Your task to perform on an android device: find which apps use the phone's location Image 0: 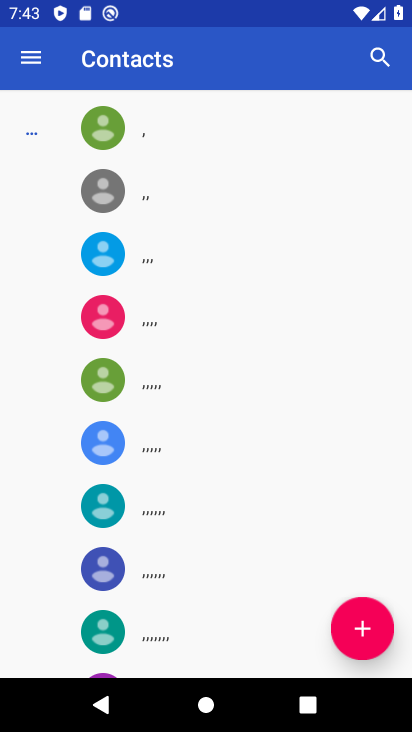
Step 0: press home button
Your task to perform on an android device: find which apps use the phone's location Image 1: 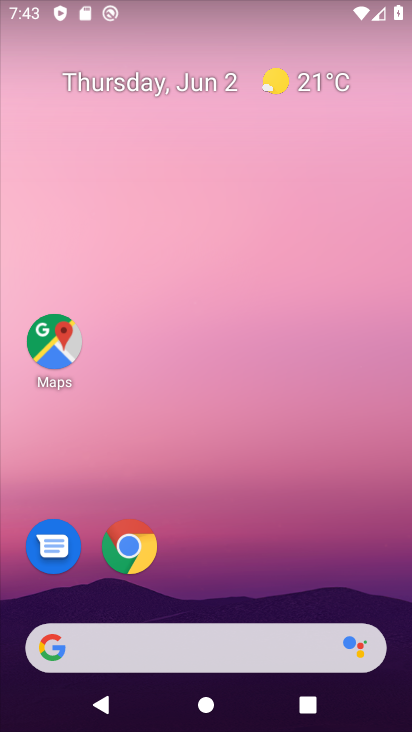
Step 1: drag from (230, 515) to (188, 28)
Your task to perform on an android device: find which apps use the phone's location Image 2: 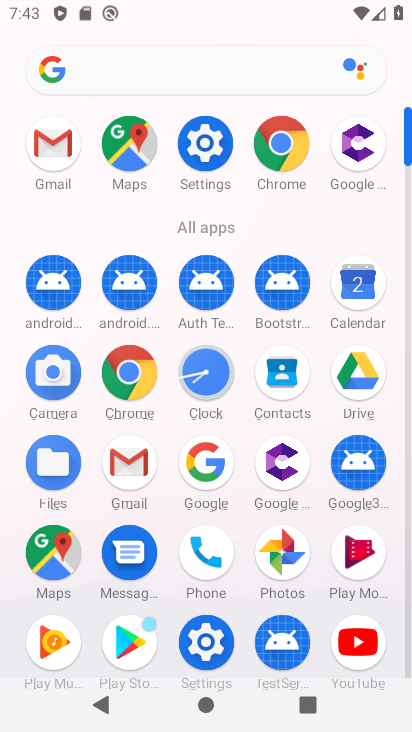
Step 2: click (210, 133)
Your task to perform on an android device: find which apps use the phone's location Image 3: 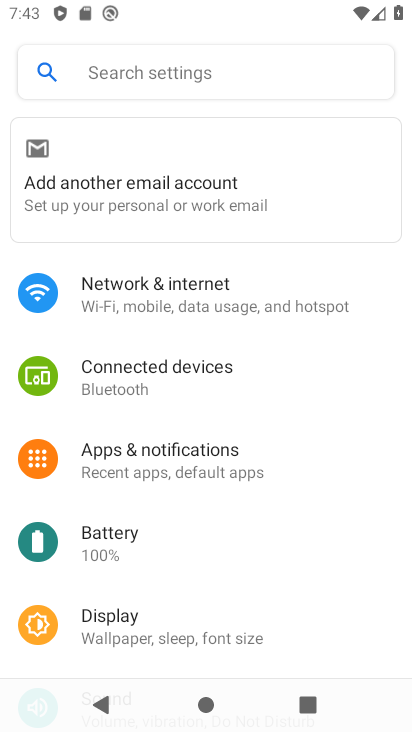
Step 3: drag from (211, 574) to (180, 113)
Your task to perform on an android device: find which apps use the phone's location Image 4: 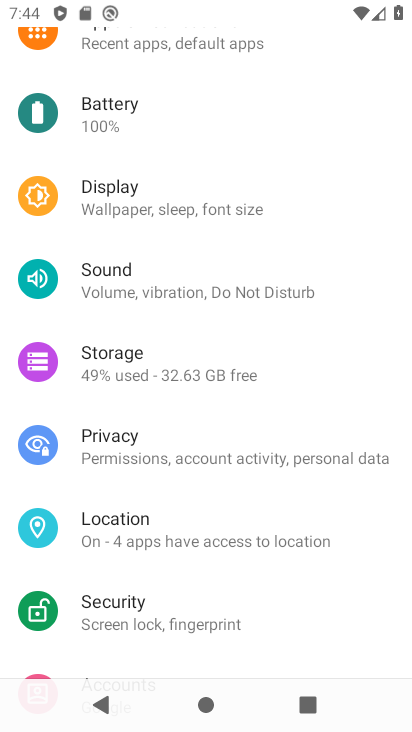
Step 4: click (223, 515)
Your task to perform on an android device: find which apps use the phone's location Image 5: 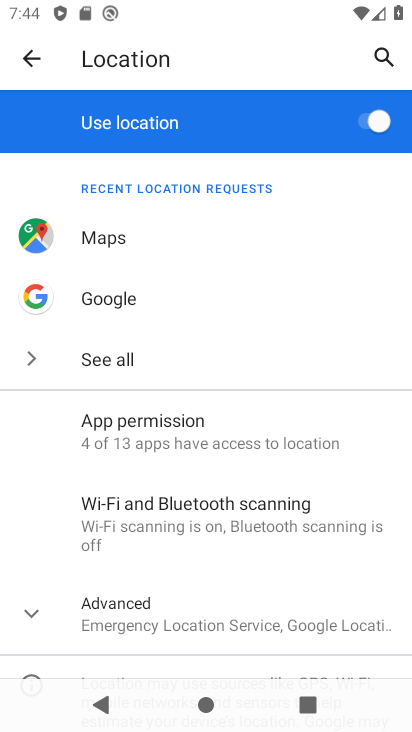
Step 5: click (204, 421)
Your task to perform on an android device: find which apps use the phone's location Image 6: 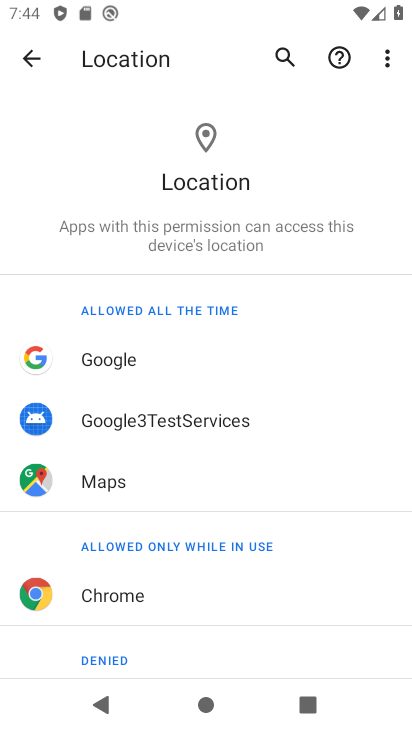
Step 6: task complete